Your task to perform on an android device: turn off airplane mode Image 0: 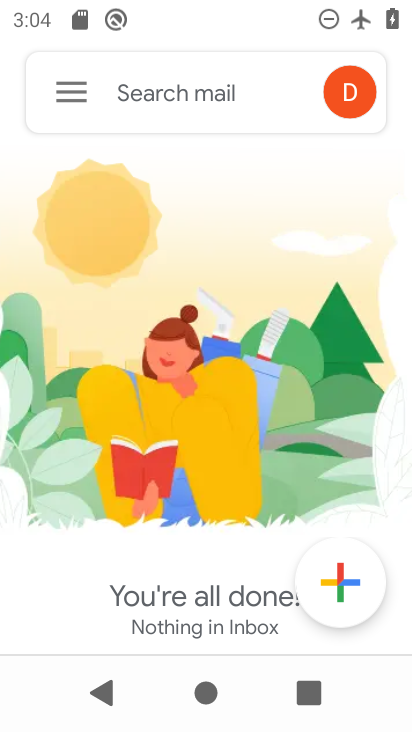
Step 0: press home button
Your task to perform on an android device: turn off airplane mode Image 1: 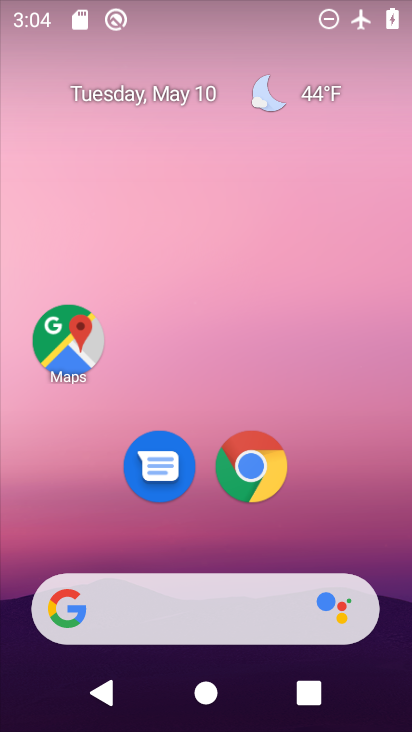
Step 1: drag from (256, 550) to (340, 3)
Your task to perform on an android device: turn off airplane mode Image 2: 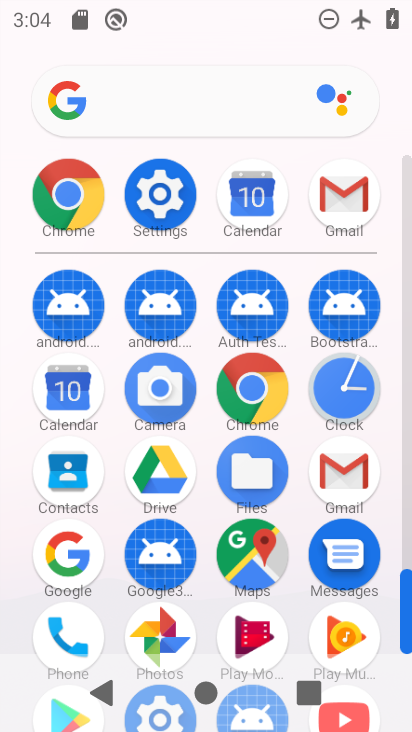
Step 2: click (163, 180)
Your task to perform on an android device: turn off airplane mode Image 3: 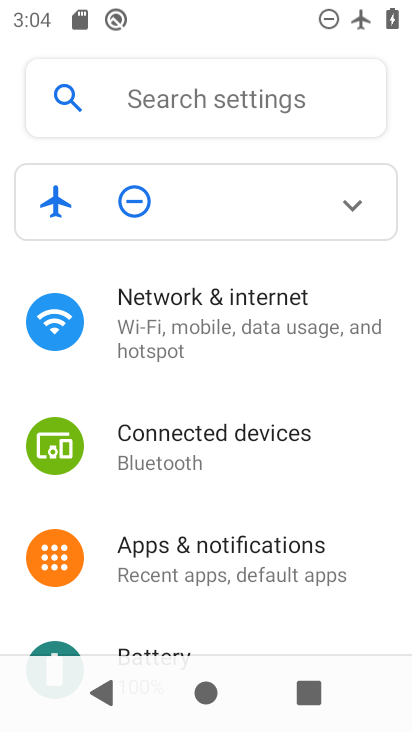
Step 3: click (195, 335)
Your task to perform on an android device: turn off airplane mode Image 4: 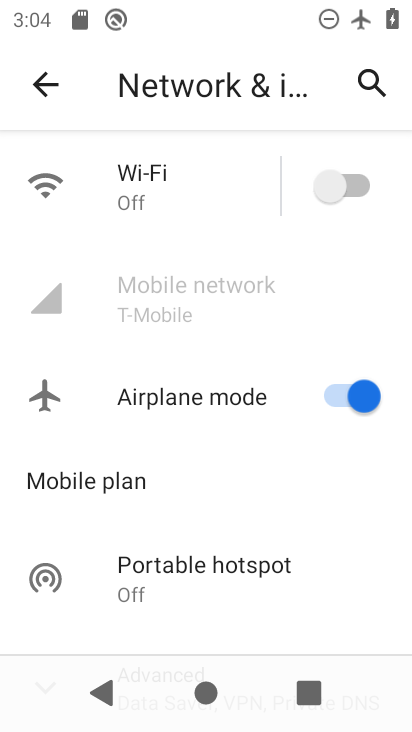
Step 4: click (342, 381)
Your task to perform on an android device: turn off airplane mode Image 5: 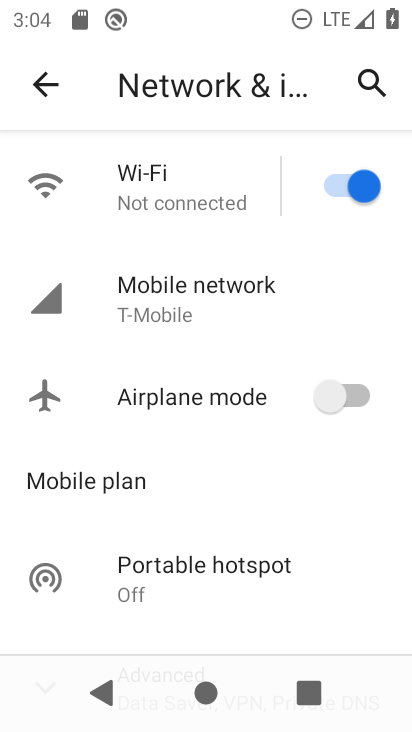
Step 5: task complete